Your task to perform on an android device: toggle data saver in the chrome app Image 0: 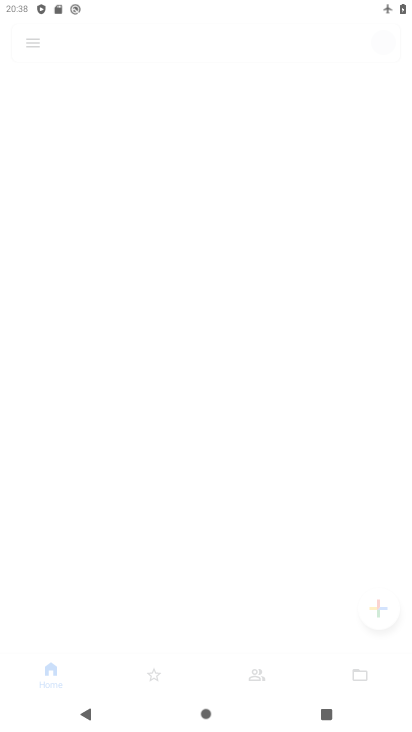
Step 0: drag from (314, 519) to (398, 133)
Your task to perform on an android device: toggle data saver in the chrome app Image 1: 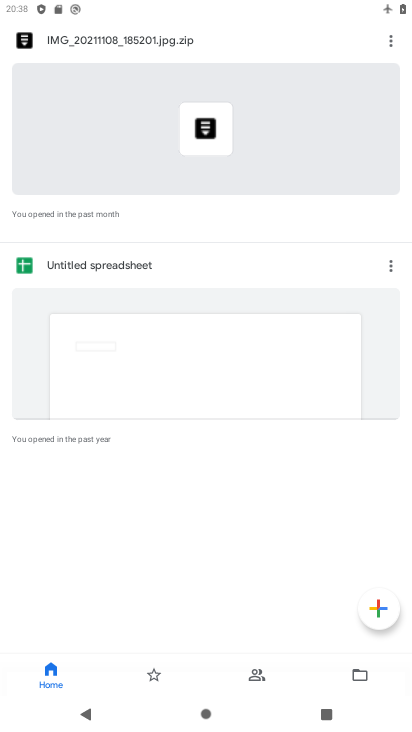
Step 1: press home button
Your task to perform on an android device: toggle data saver in the chrome app Image 2: 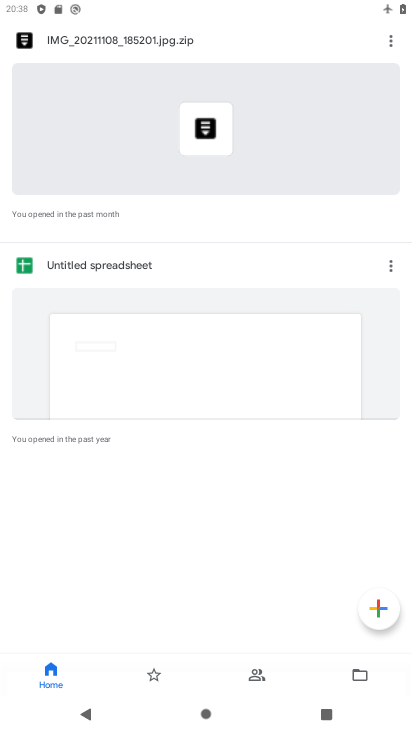
Step 2: drag from (398, 133) to (397, 505)
Your task to perform on an android device: toggle data saver in the chrome app Image 3: 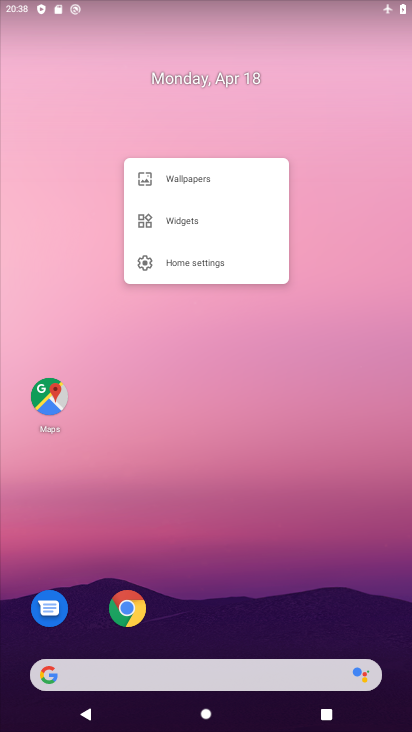
Step 3: click (125, 607)
Your task to perform on an android device: toggle data saver in the chrome app Image 4: 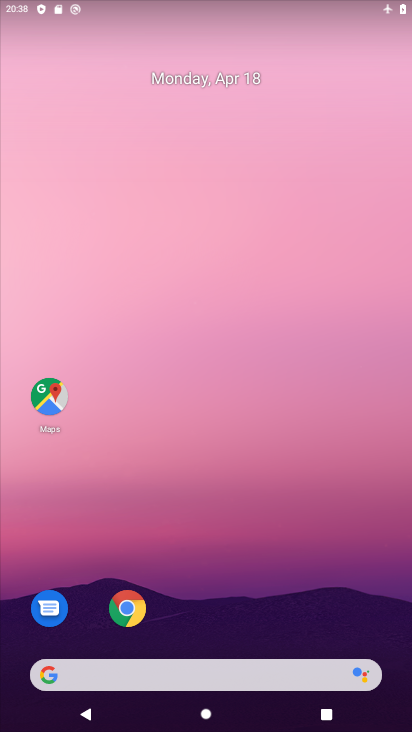
Step 4: click (128, 609)
Your task to perform on an android device: toggle data saver in the chrome app Image 5: 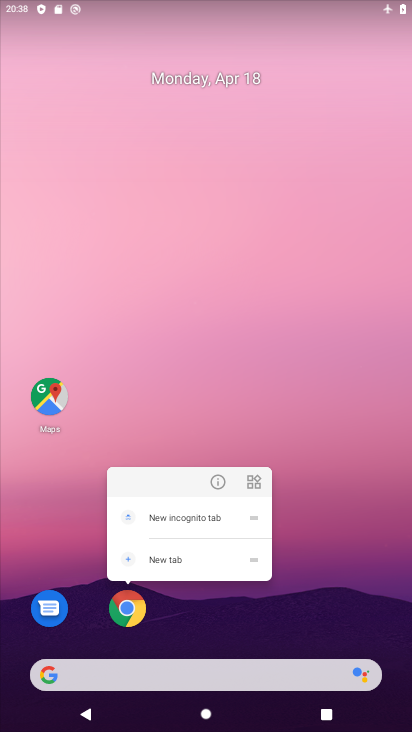
Step 5: click (123, 609)
Your task to perform on an android device: toggle data saver in the chrome app Image 6: 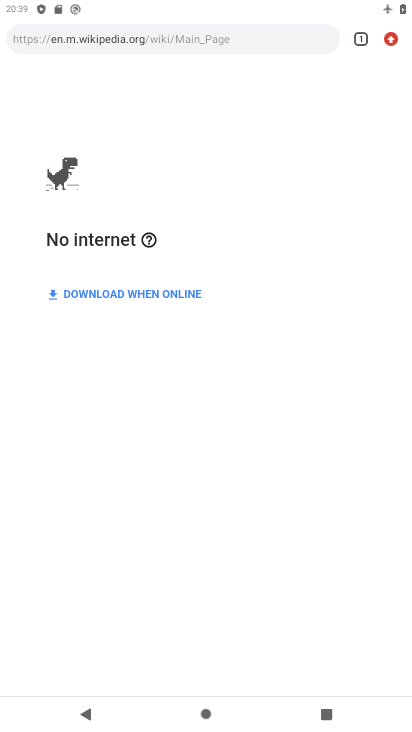
Step 6: click (391, 37)
Your task to perform on an android device: toggle data saver in the chrome app Image 7: 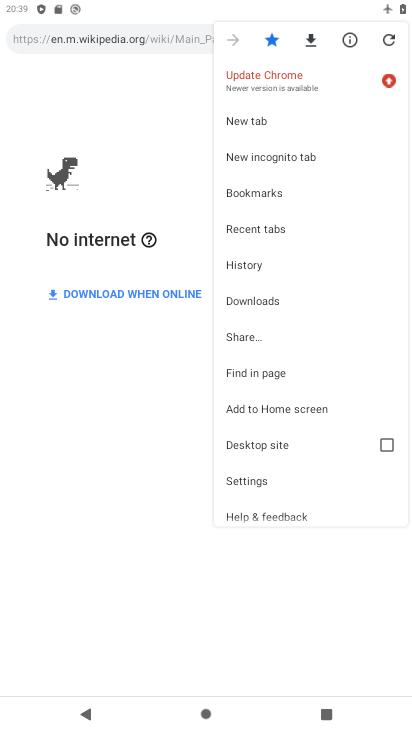
Step 7: click (265, 480)
Your task to perform on an android device: toggle data saver in the chrome app Image 8: 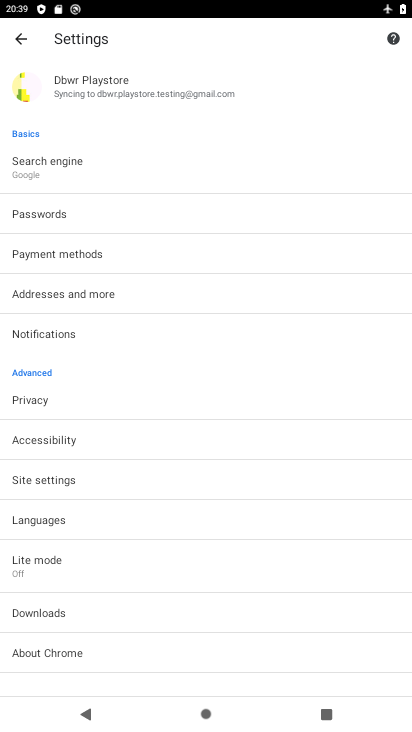
Step 8: click (86, 564)
Your task to perform on an android device: toggle data saver in the chrome app Image 9: 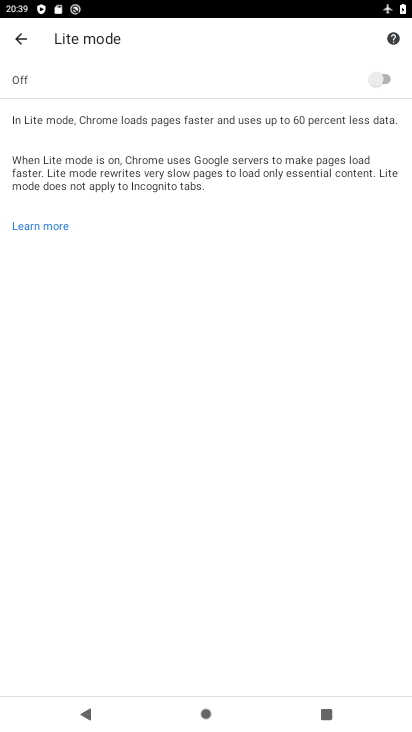
Step 9: click (385, 79)
Your task to perform on an android device: toggle data saver in the chrome app Image 10: 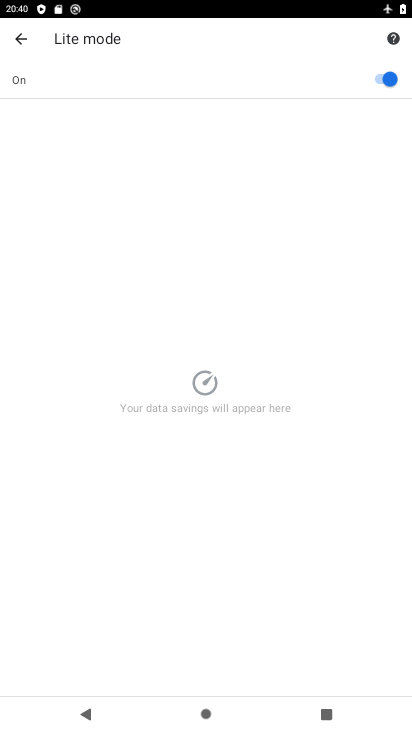
Step 10: task complete